Your task to perform on an android device: Open the web browser Image 0: 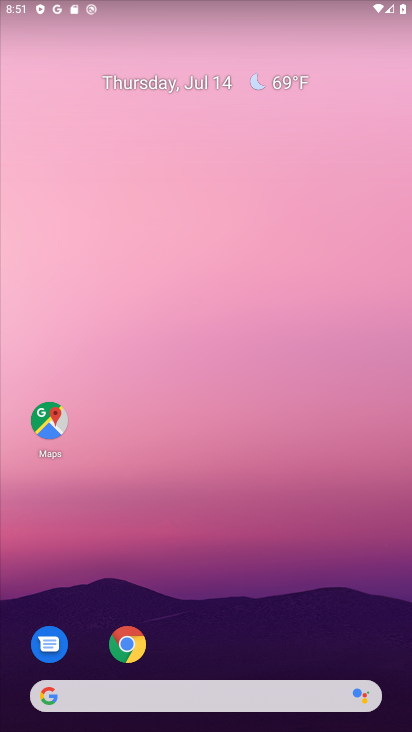
Step 0: click (217, 691)
Your task to perform on an android device: Open the web browser Image 1: 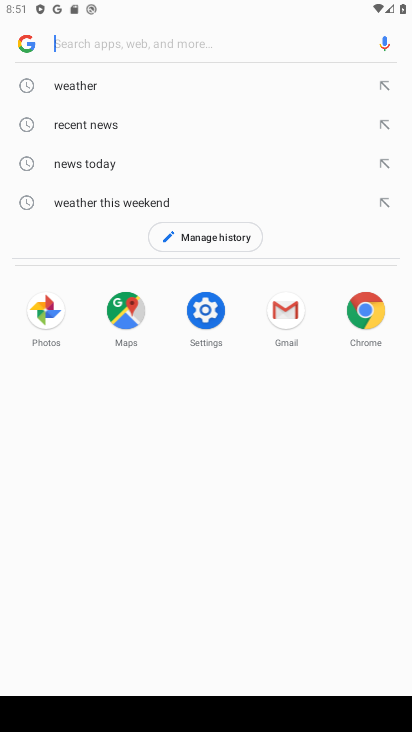
Step 1: task complete